Your task to perform on an android device: open app "Indeed Job Search" (install if not already installed) Image 0: 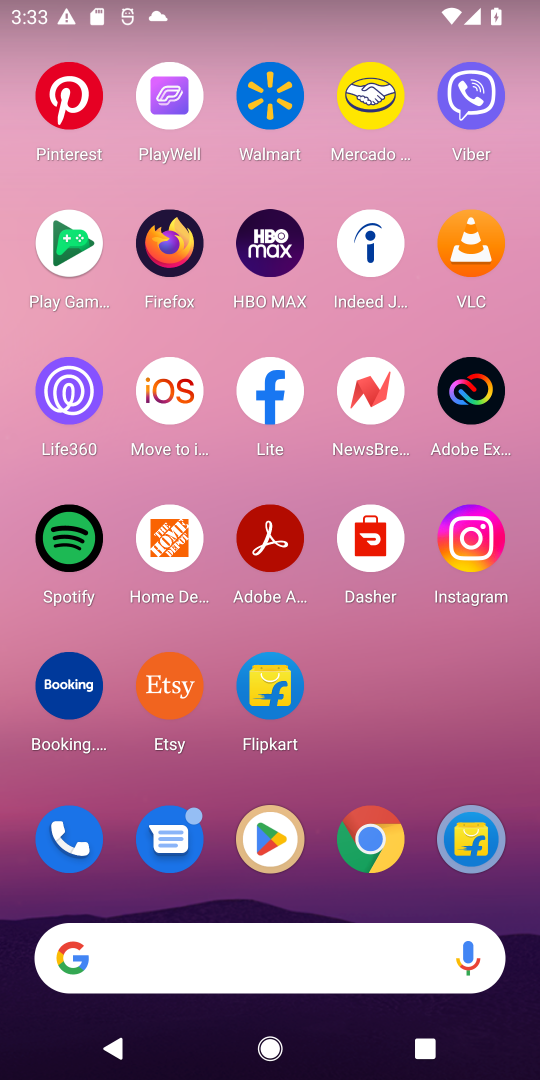
Step 0: click (260, 872)
Your task to perform on an android device: open app "Indeed Job Search" (install if not already installed) Image 1: 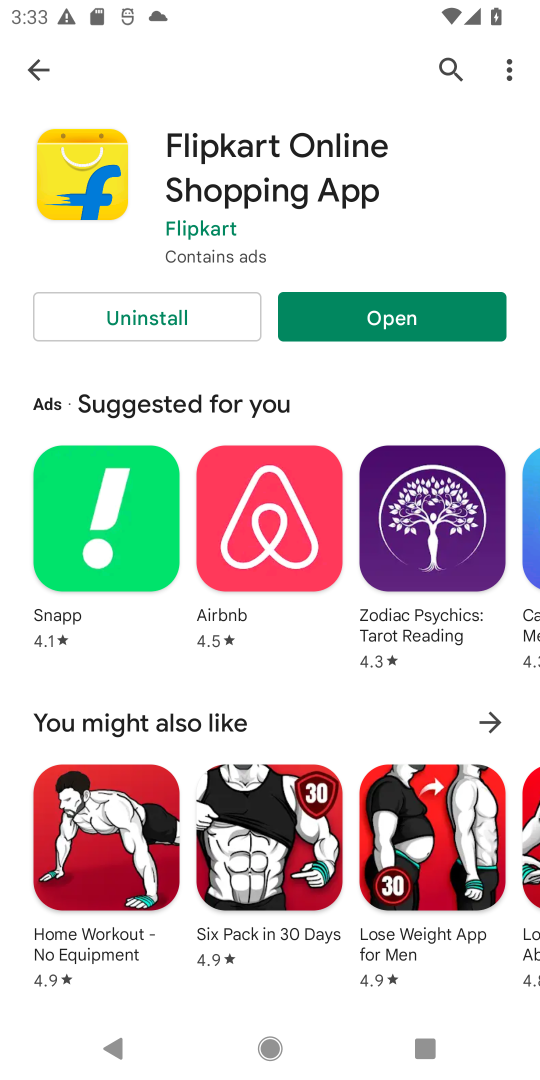
Step 1: click (47, 75)
Your task to perform on an android device: open app "Indeed Job Search" (install if not already installed) Image 2: 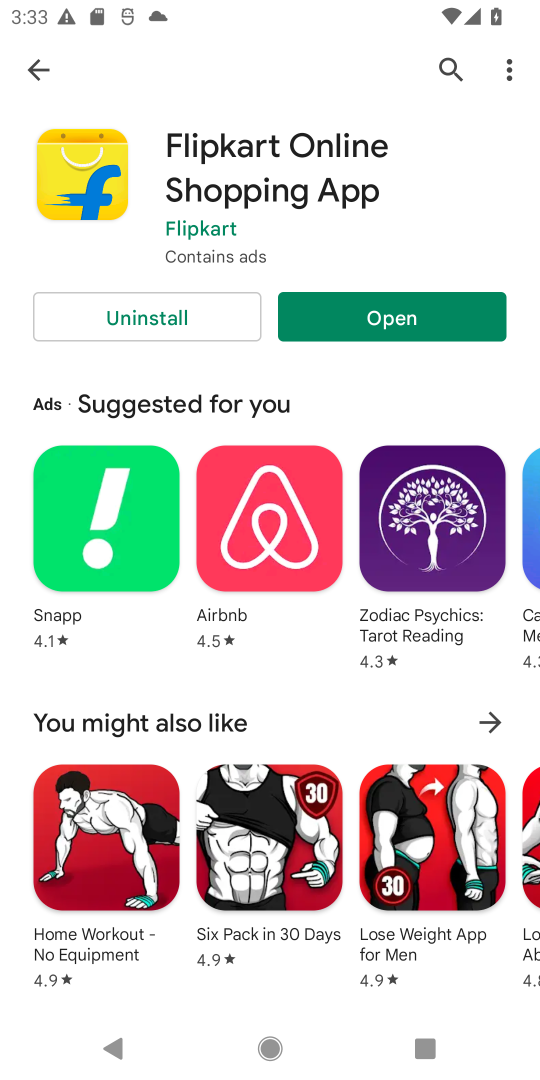
Step 2: click (31, 66)
Your task to perform on an android device: open app "Indeed Job Search" (install if not already installed) Image 3: 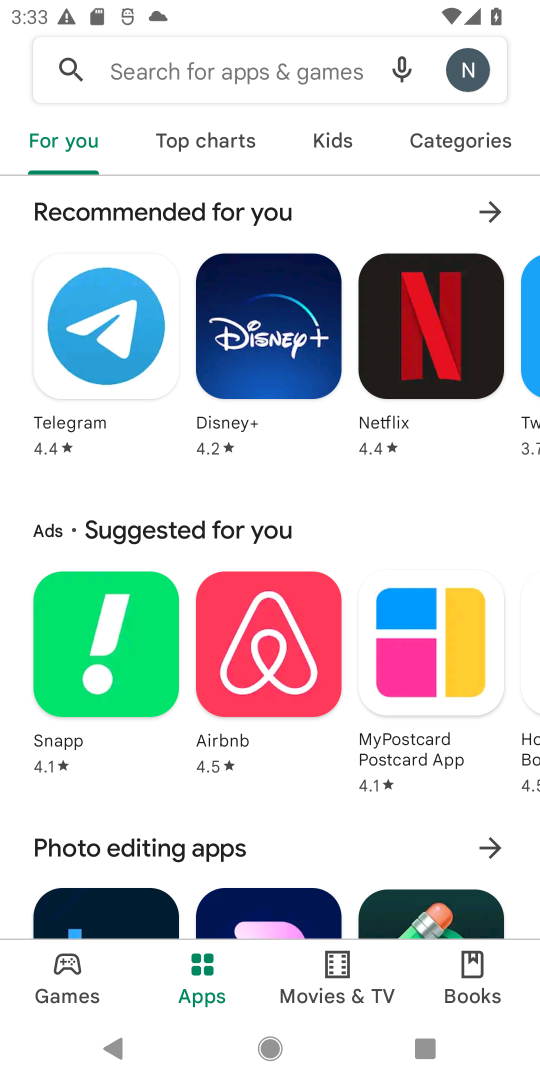
Step 3: click (137, 75)
Your task to perform on an android device: open app "Indeed Job Search" (install if not already installed) Image 4: 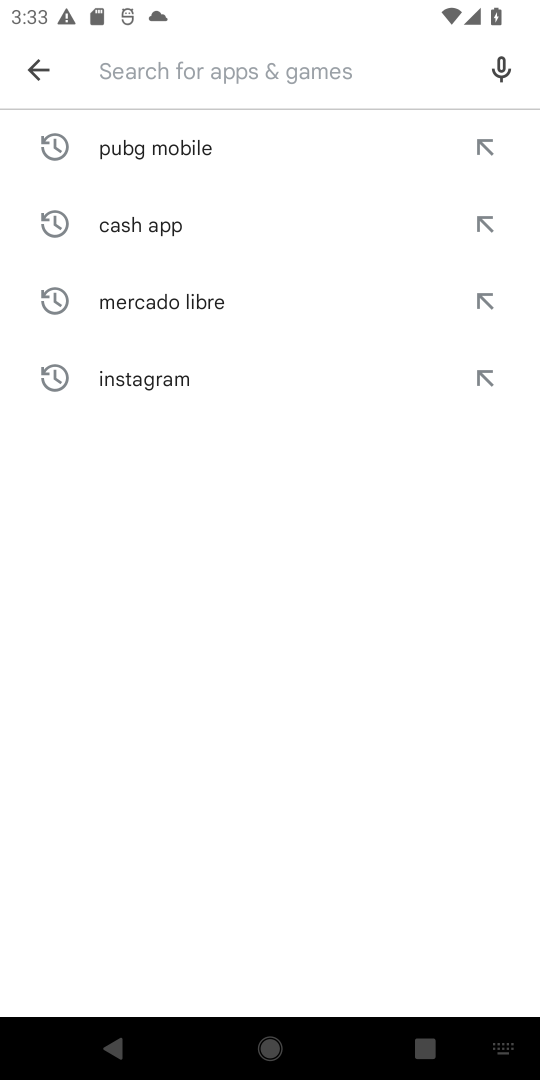
Step 4: type "Indeed Job Search"
Your task to perform on an android device: open app "Indeed Job Search" (install if not already installed) Image 5: 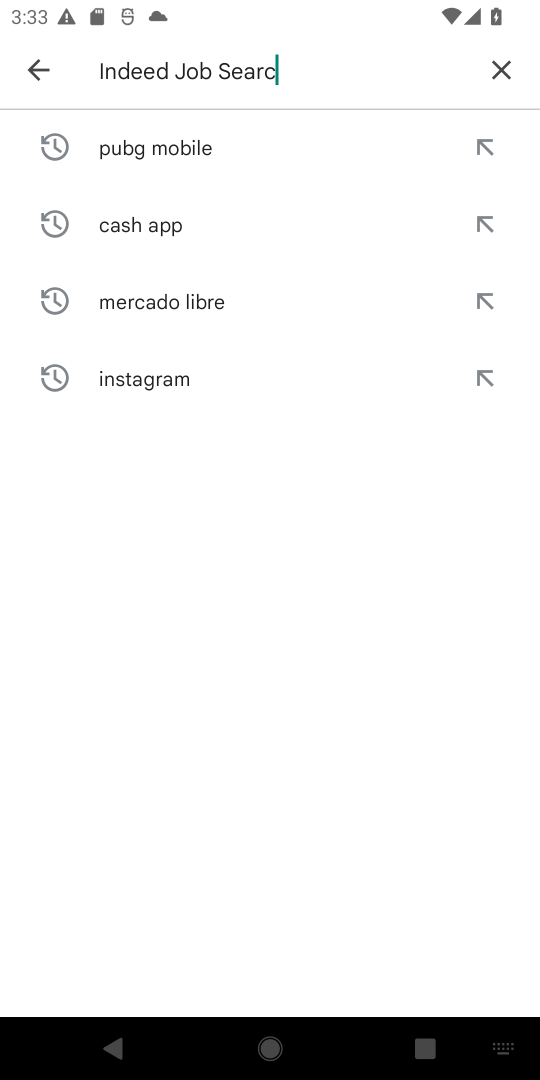
Step 5: type ""
Your task to perform on an android device: open app "Indeed Job Search" (install if not already installed) Image 6: 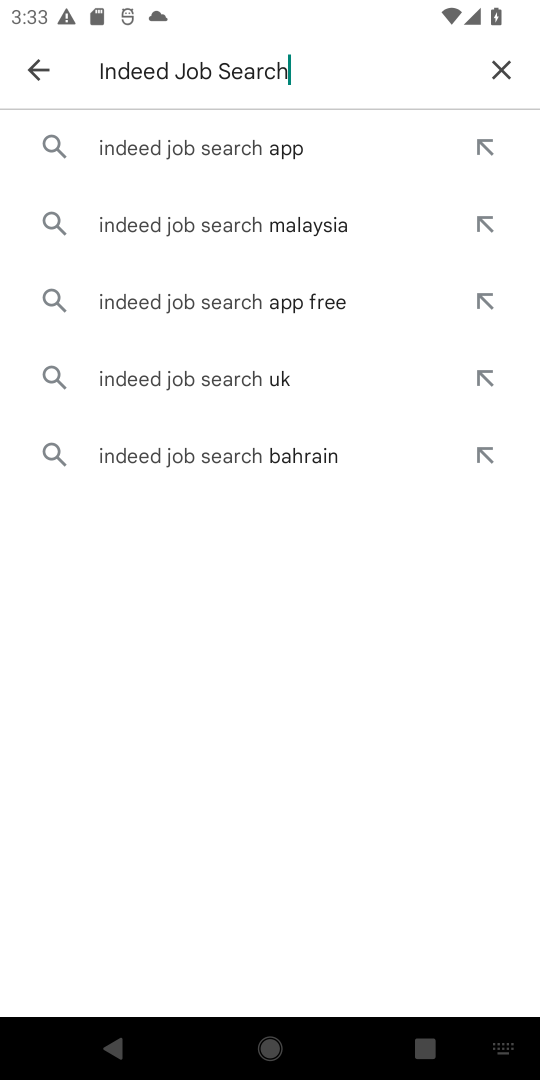
Step 6: click (296, 145)
Your task to perform on an android device: open app "Indeed Job Search" (install if not already installed) Image 7: 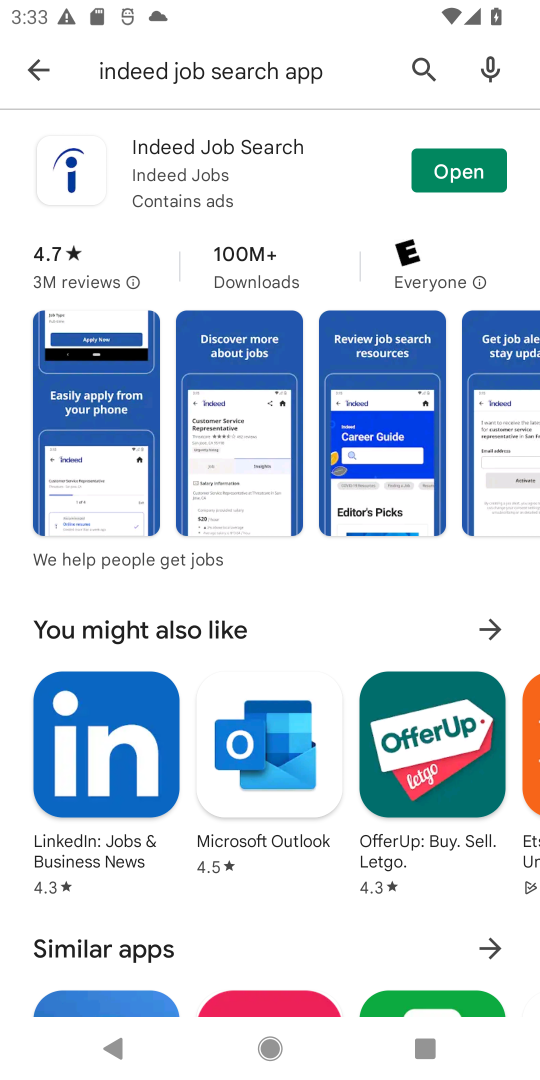
Step 7: click (448, 185)
Your task to perform on an android device: open app "Indeed Job Search" (install if not already installed) Image 8: 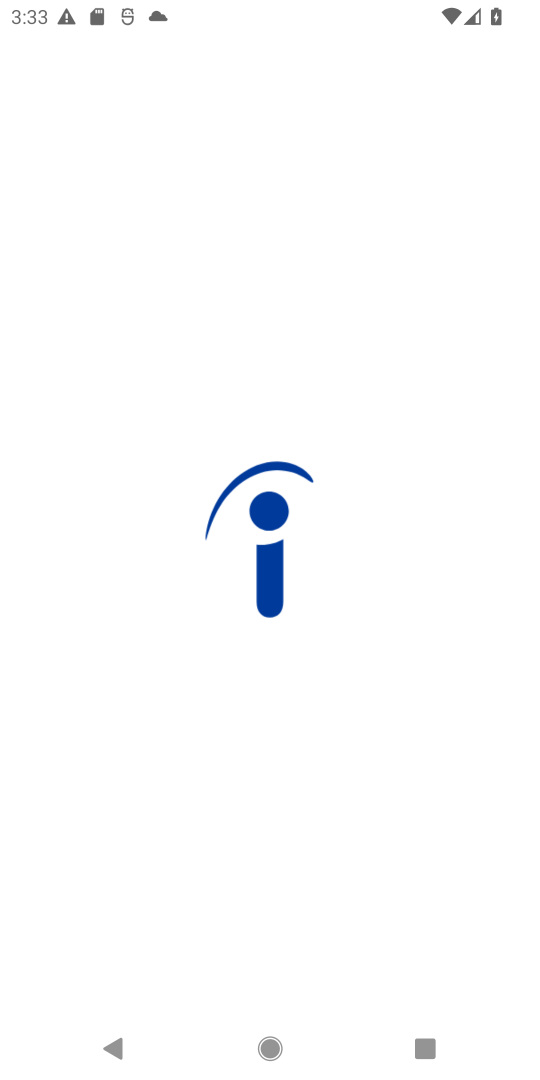
Step 8: task complete